Your task to perform on an android device: Show me recent news Image 0: 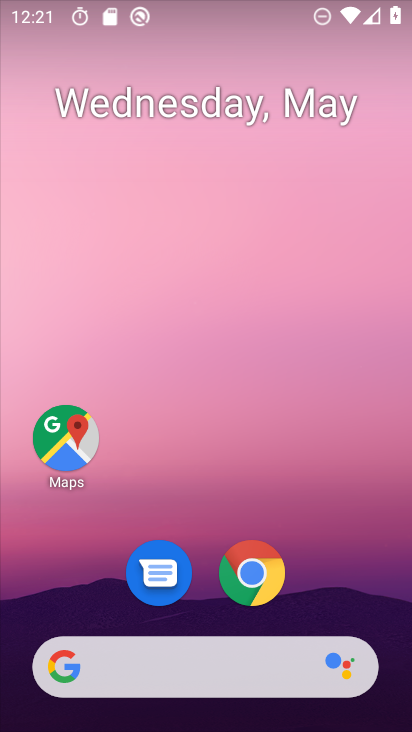
Step 0: drag from (313, 560) to (244, 12)
Your task to perform on an android device: Show me recent news Image 1: 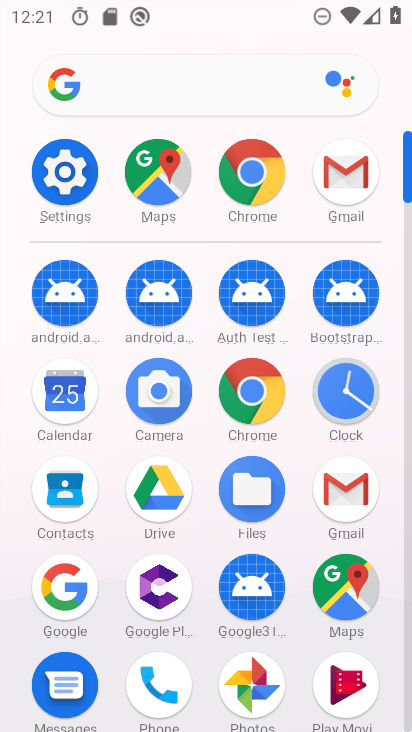
Step 1: drag from (8, 502) to (26, 246)
Your task to perform on an android device: Show me recent news Image 2: 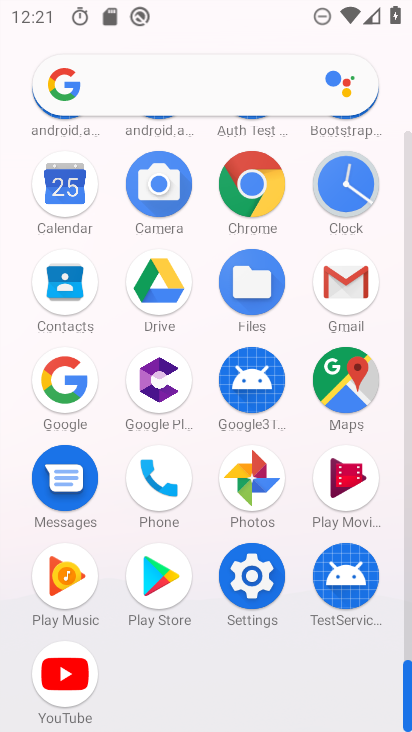
Step 2: click (249, 179)
Your task to perform on an android device: Show me recent news Image 3: 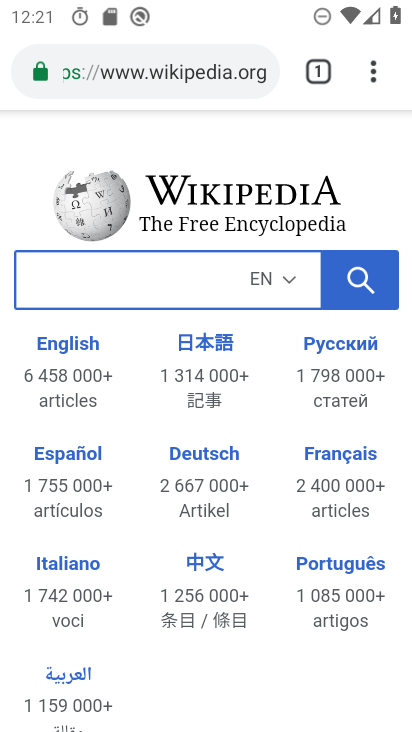
Step 3: click (176, 68)
Your task to perform on an android device: Show me recent news Image 4: 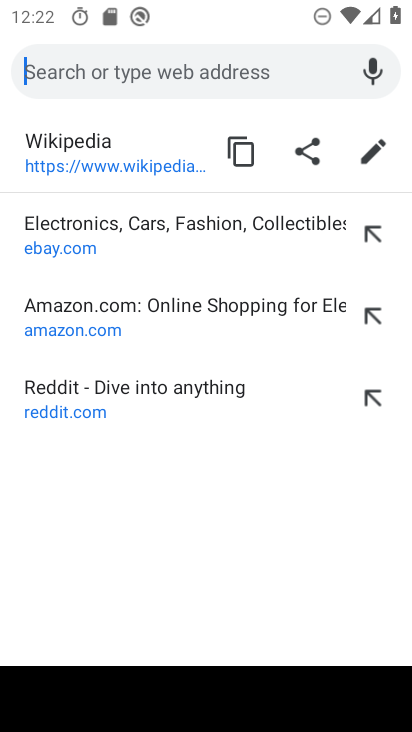
Step 4: type "Show me recent news"
Your task to perform on an android device: Show me recent news Image 5: 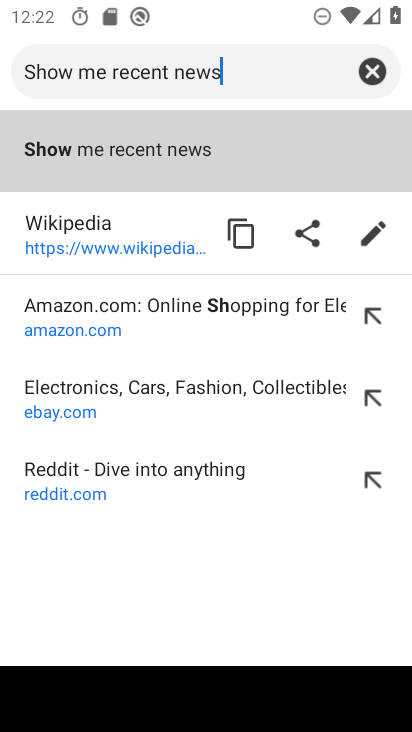
Step 5: type ""
Your task to perform on an android device: Show me recent news Image 6: 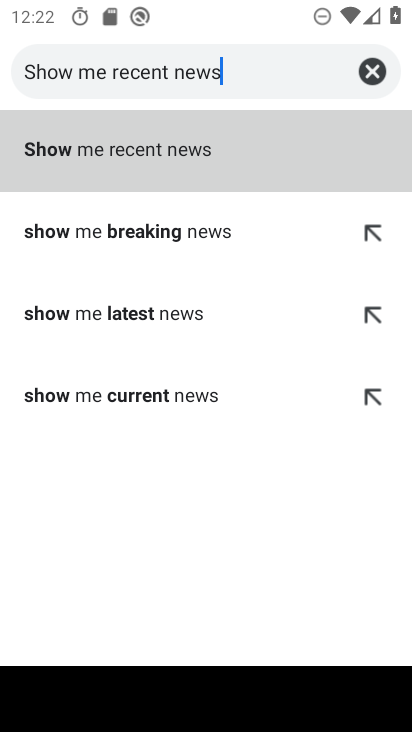
Step 6: click (157, 161)
Your task to perform on an android device: Show me recent news Image 7: 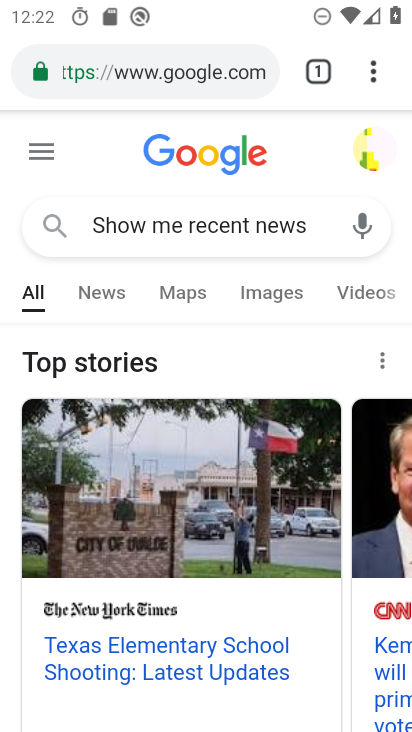
Step 7: task complete